Your task to perform on an android device: open app "Pandora - Music & Podcasts" (install if not already installed) and enter user name: "creator@yahoo.com" and password: "valuable" Image 0: 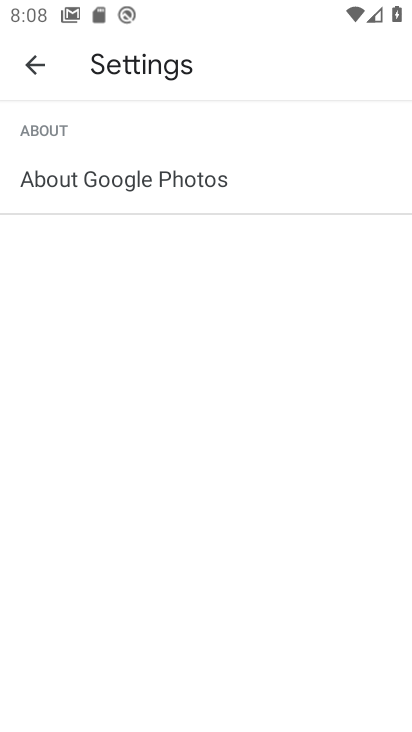
Step 0: press home button
Your task to perform on an android device: open app "Pandora - Music & Podcasts" (install if not already installed) and enter user name: "creator@yahoo.com" and password: "valuable" Image 1: 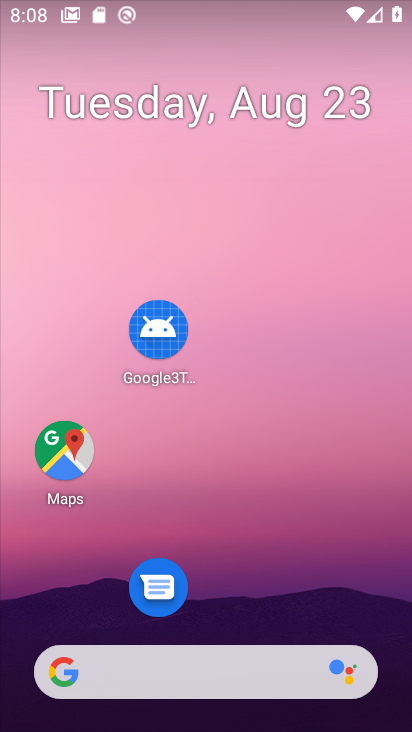
Step 1: drag from (228, 625) to (214, 82)
Your task to perform on an android device: open app "Pandora - Music & Podcasts" (install if not already installed) and enter user name: "creator@yahoo.com" and password: "valuable" Image 2: 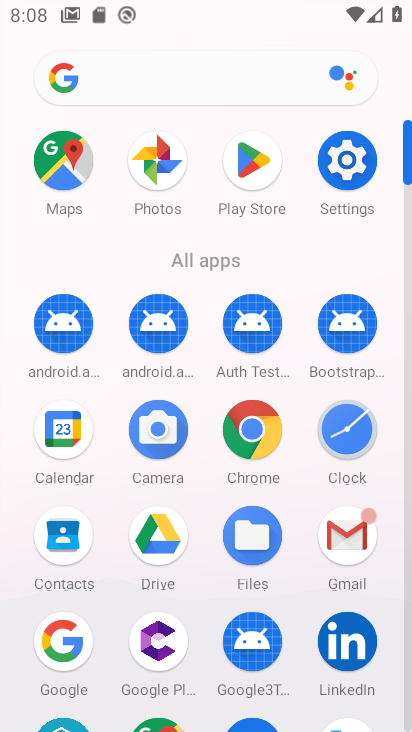
Step 2: click (240, 149)
Your task to perform on an android device: open app "Pandora - Music & Podcasts" (install if not already installed) and enter user name: "creator@yahoo.com" and password: "valuable" Image 3: 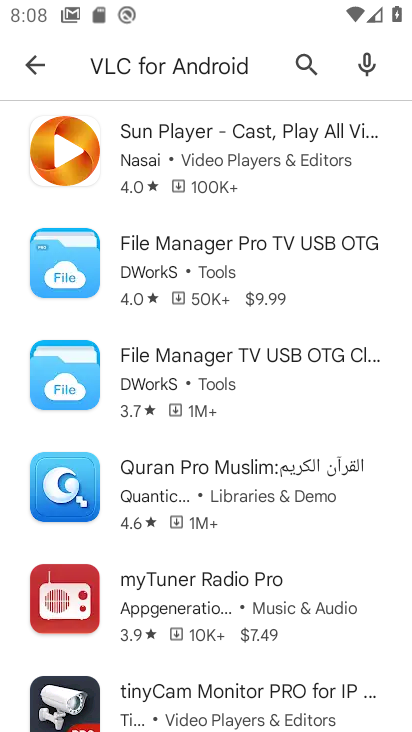
Step 3: click (302, 82)
Your task to perform on an android device: open app "Pandora - Music & Podcasts" (install if not already installed) and enter user name: "creator@yahoo.com" and password: "valuable" Image 4: 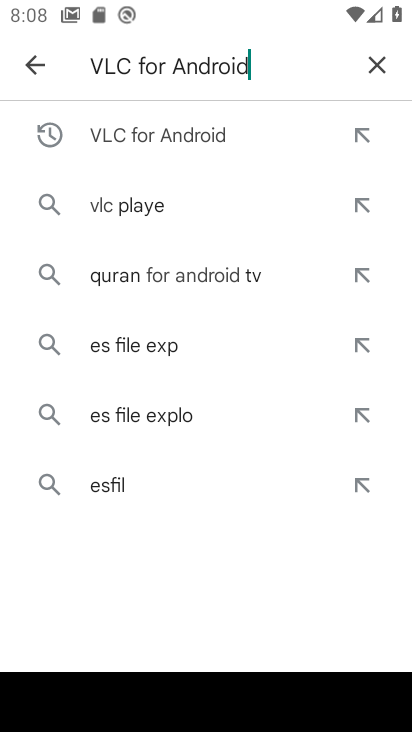
Step 4: click (370, 76)
Your task to perform on an android device: open app "Pandora - Music & Podcasts" (install if not already installed) and enter user name: "creator@yahoo.com" and password: "valuable" Image 5: 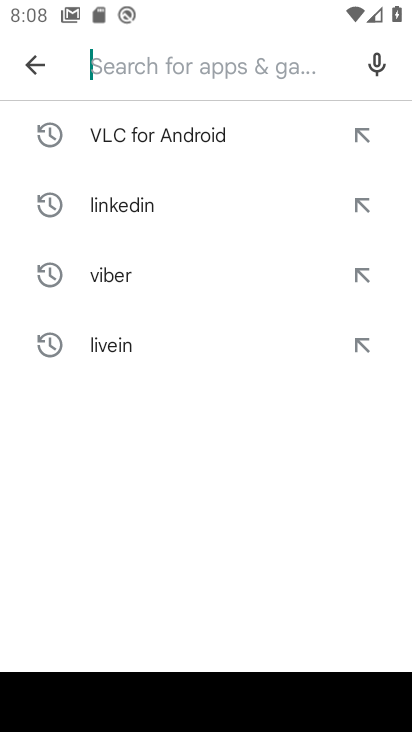
Step 5: type "pandora"
Your task to perform on an android device: open app "Pandora - Music & Podcasts" (install if not already installed) and enter user name: "creator@yahoo.com" and password: "valuable" Image 6: 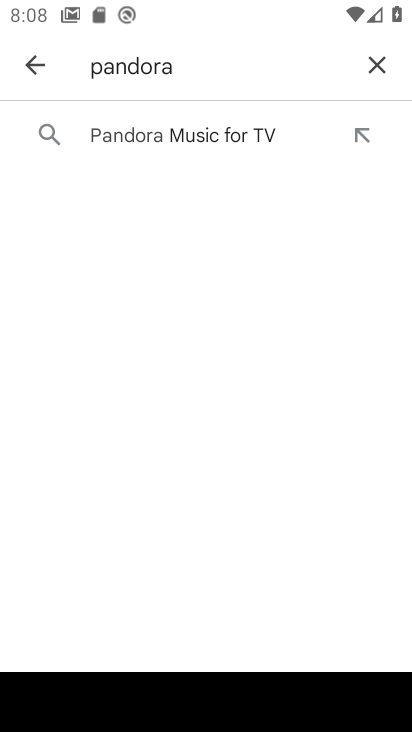
Step 6: click (137, 114)
Your task to perform on an android device: open app "Pandora - Music & Podcasts" (install if not already installed) and enter user name: "creator@yahoo.com" and password: "valuable" Image 7: 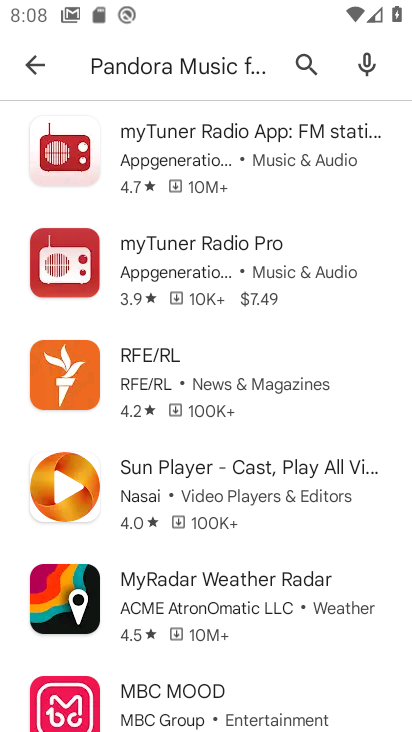
Step 7: task complete